Your task to perform on an android device: Is it going to rain this weekend? Image 0: 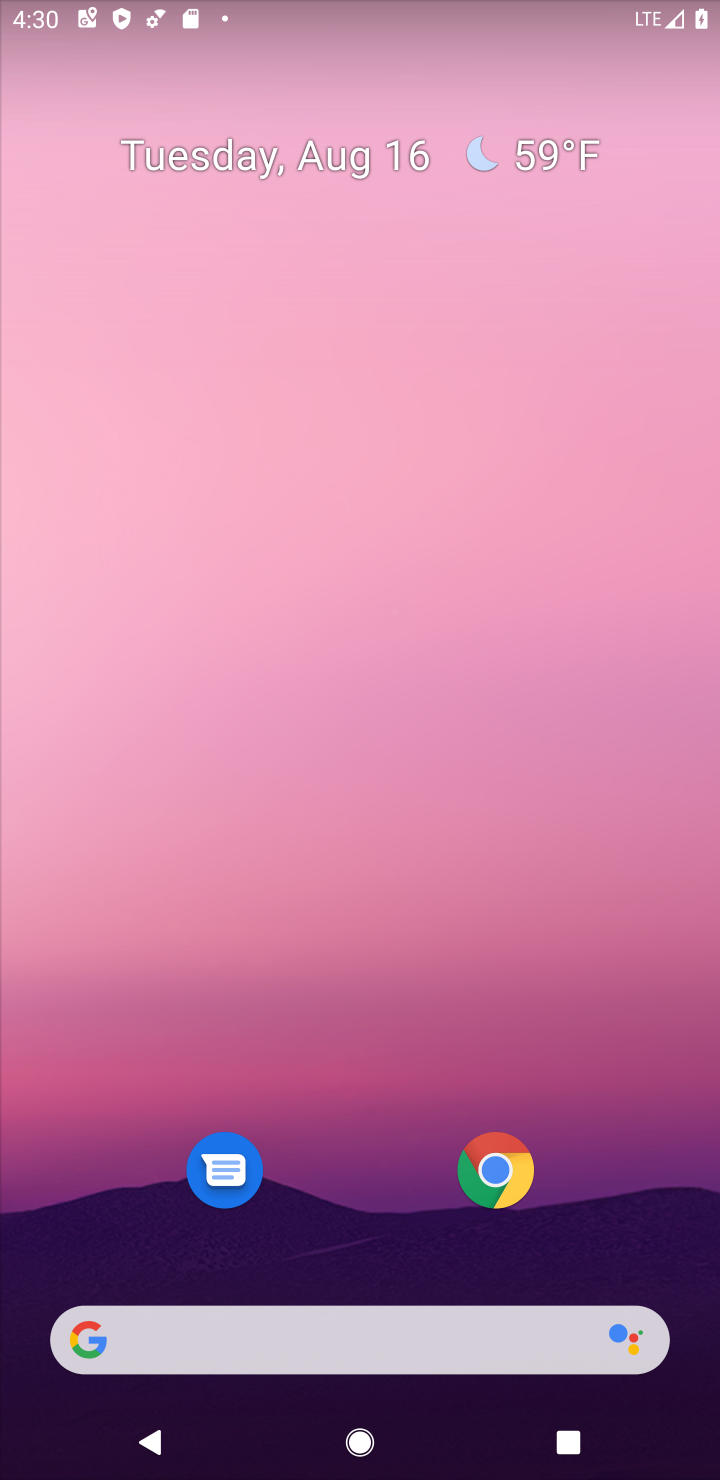
Step 0: drag from (408, 1283) to (572, 26)
Your task to perform on an android device: Is it going to rain this weekend? Image 1: 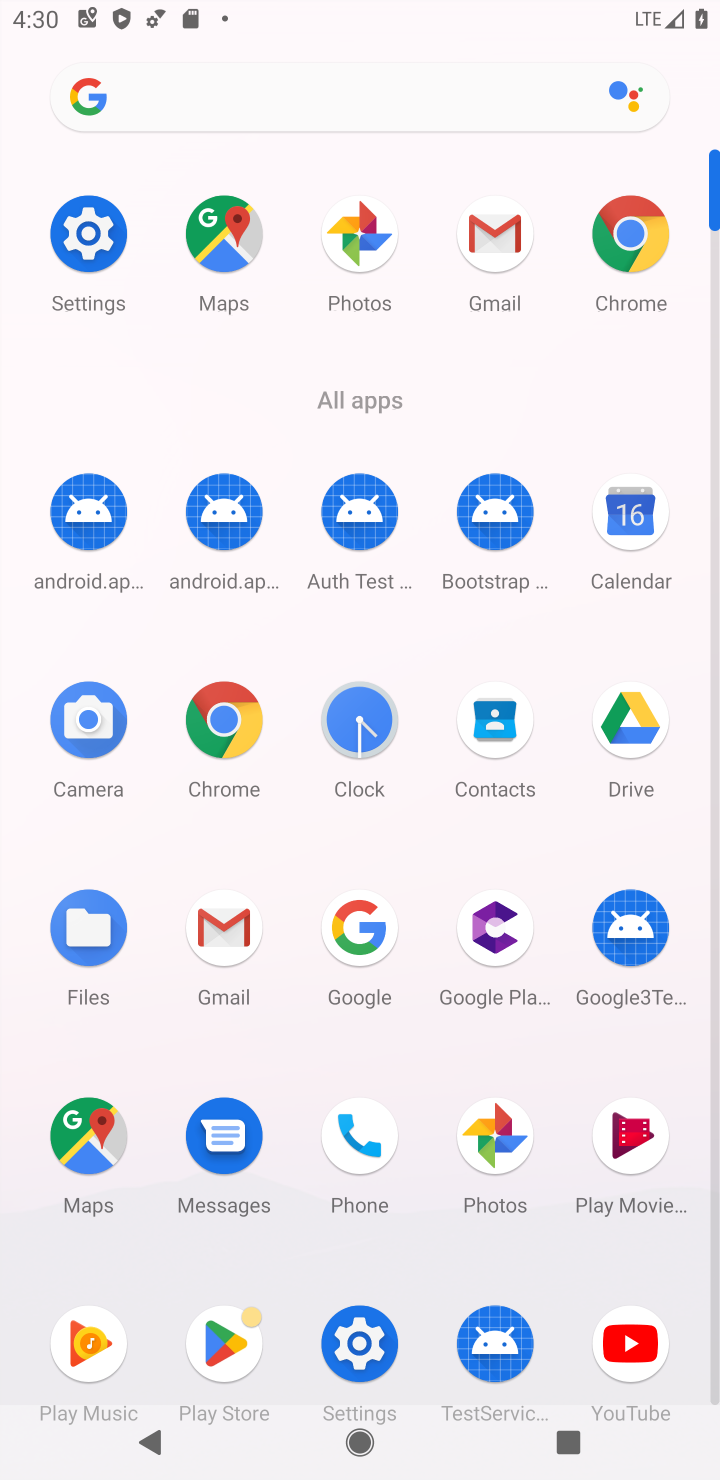
Step 1: click (347, 943)
Your task to perform on an android device: Is it going to rain this weekend? Image 2: 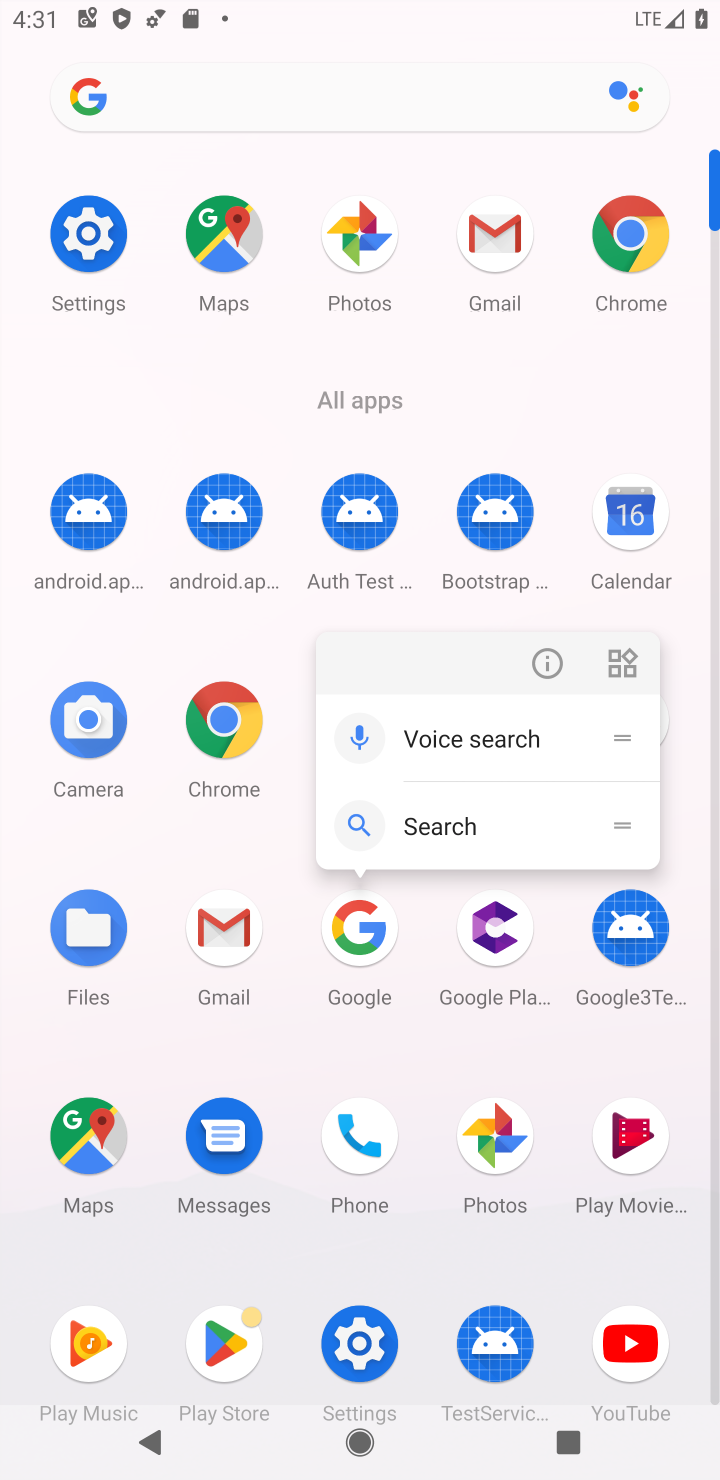
Step 2: click (359, 932)
Your task to perform on an android device: Is it going to rain this weekend? Image 3: 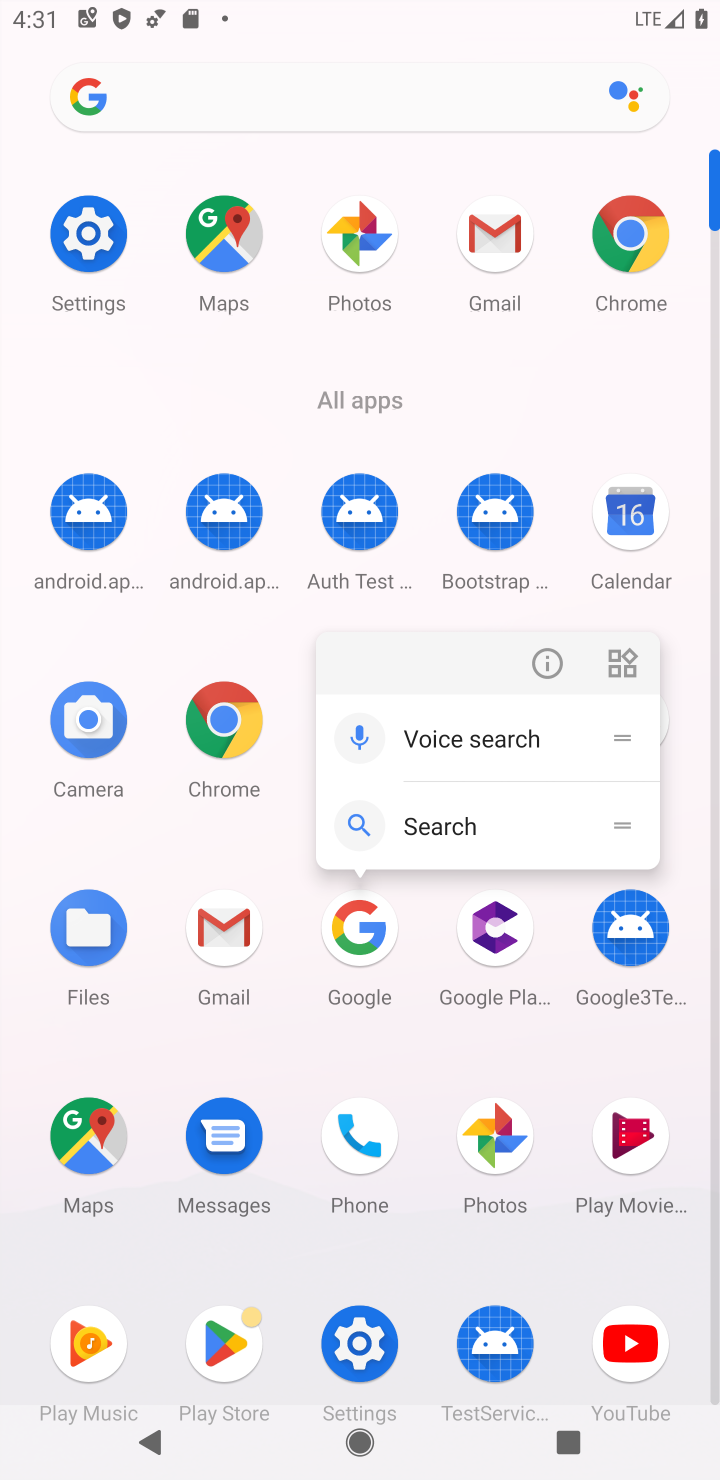
Step 3: click (359, 932)
Your task to perform on an android device: Is it going to rain this weekend? Image 4: 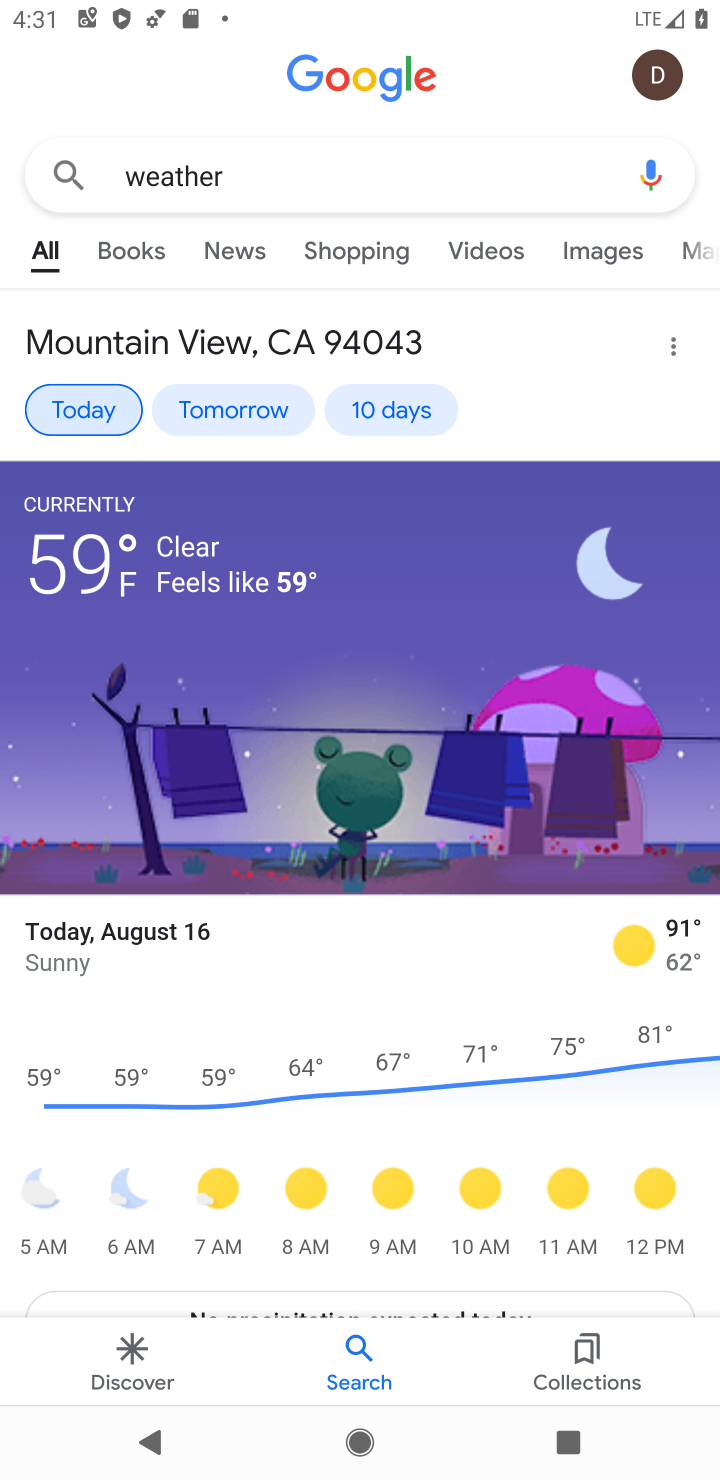
Step 4: click (397, 405)
Your task to perform on an android device: Is it going to rain this weekend? Image 5: 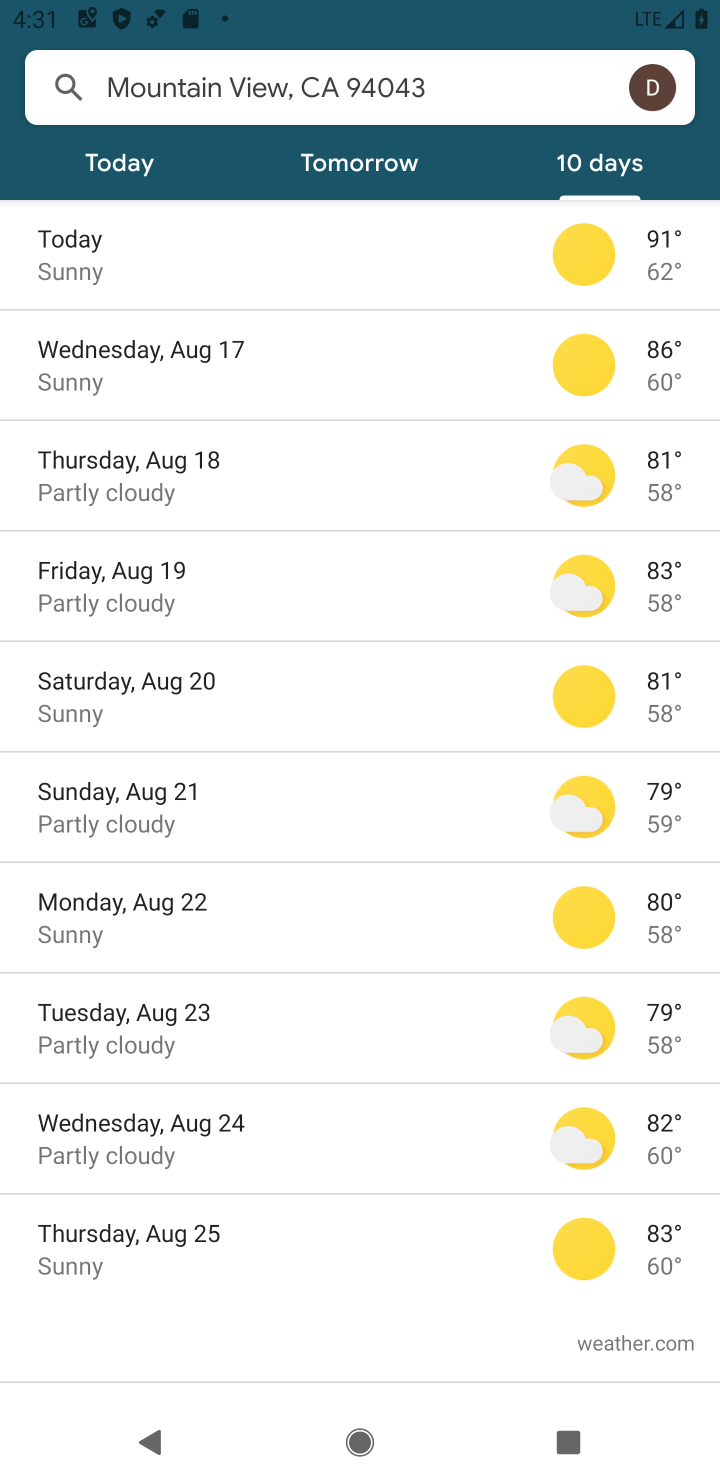
Step 5: task complete